Your task to perform on an android device: Go to Maps Image 0: 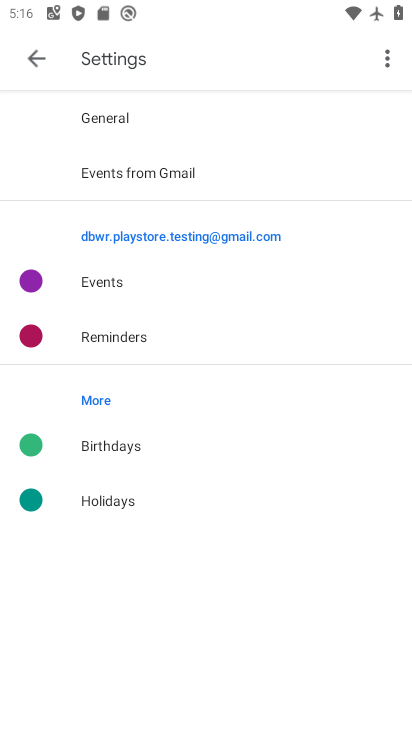
Step 0: press home button
Your task to perform on an android device: Go to Maps Image 1: 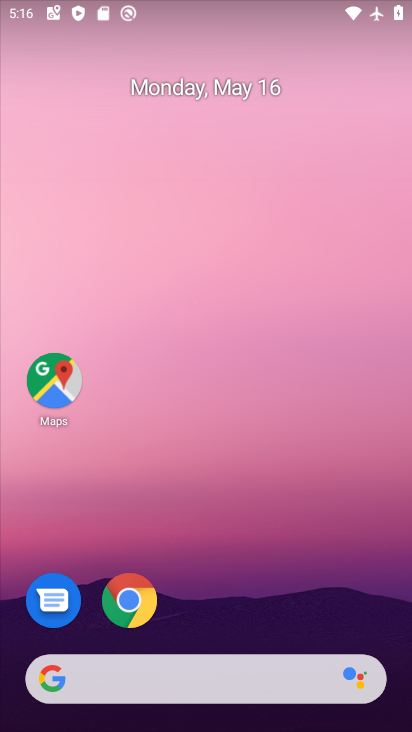
Step 1: drag from (224, 636) to (188, 24)
Your task to perform on an android device: Go to Maps Image 2: 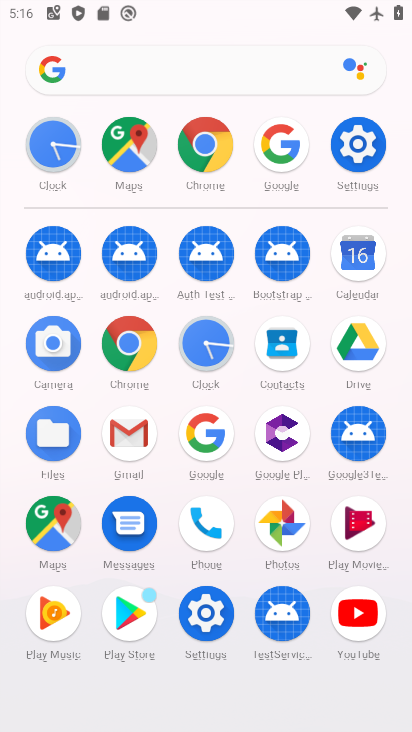
Step 2: click (58, 533)
Your task to perform on an android device: Go to Maps Image 3: 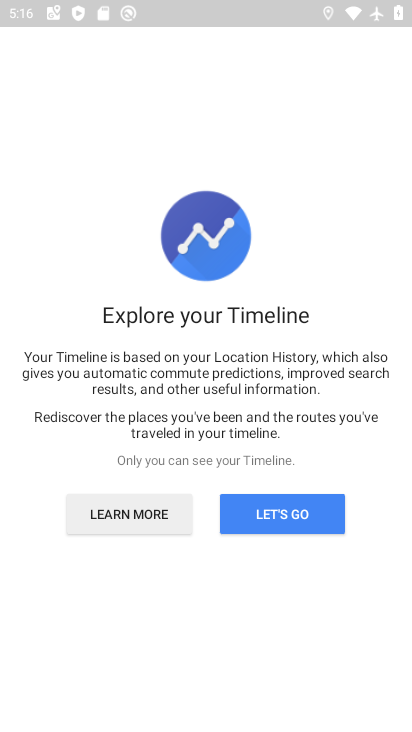
Step 3: click (270, 513)
Your task to perform on an android device: Go to Maps Image 4: 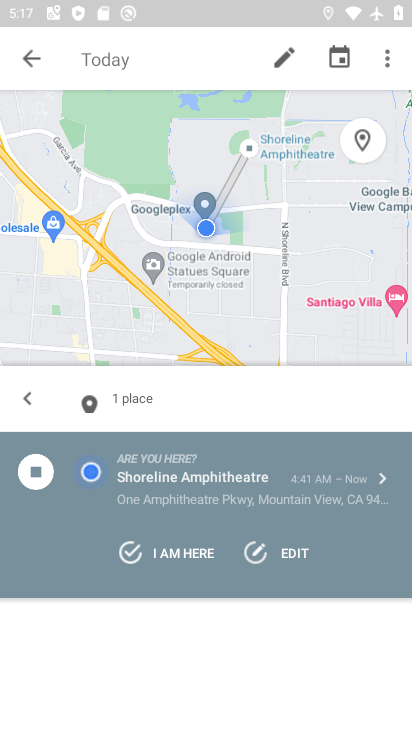
Step 4: task complete